Your task to perform on an android device: Open maps Image 0: 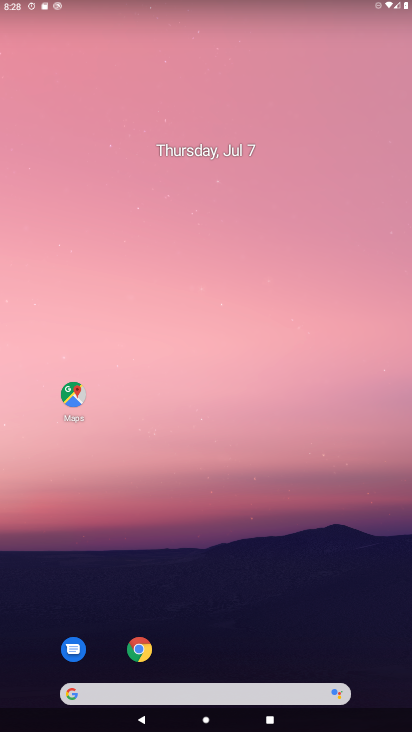
Step 0: press home button
Your task to perform on an android device: Open maps Image 1: 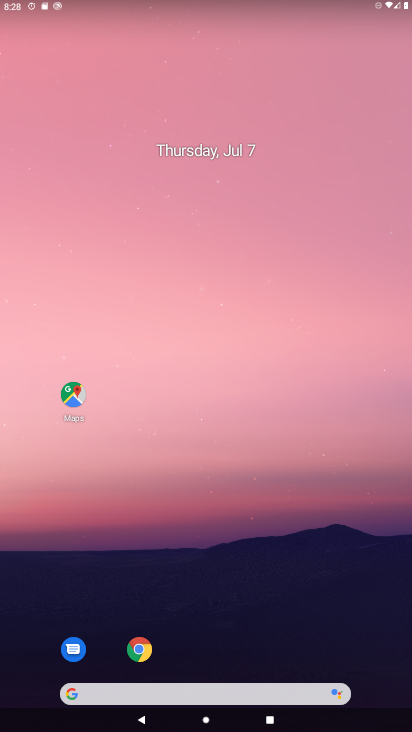
Step 1: click (67, 393)
Your task to perform on an android device: Open maps Image 2: 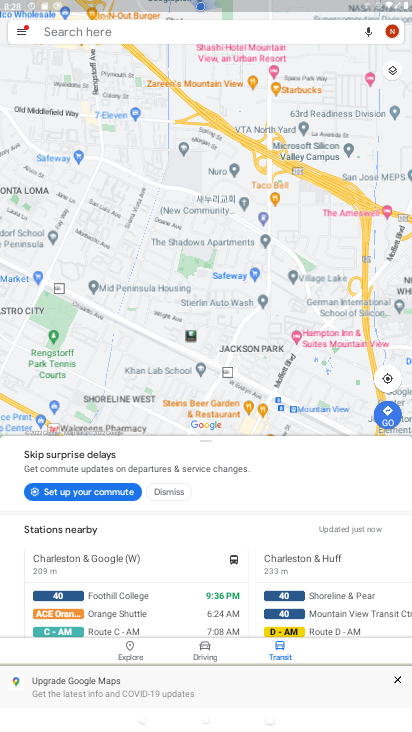
Step 2: task complete